Your task to perform on an android device: clear history in the chrome app Image 0: 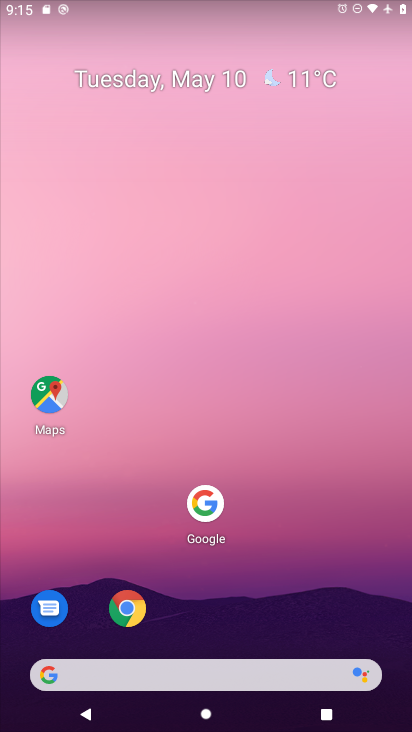
Step 0: drag from (188, 679) to (232, 184)
Your task to perform on an android device: clear history in the chrome app Image 1: 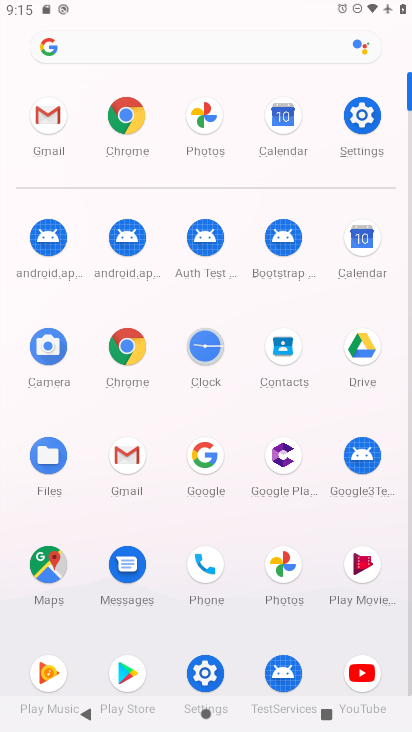
Step 1: click (130, 124)
Your task to perform on an android device: clear history in the chrome app Image 2: 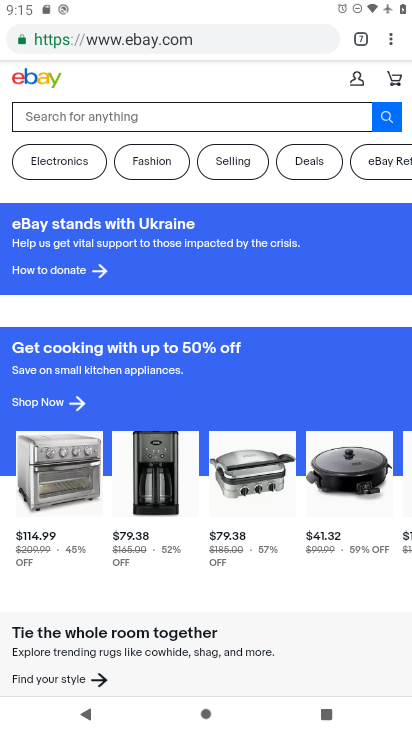
Step 2: drag from (394, 36) to (282, 221)
Your task to perform on an android device: clear history in the chrome app Image 3: 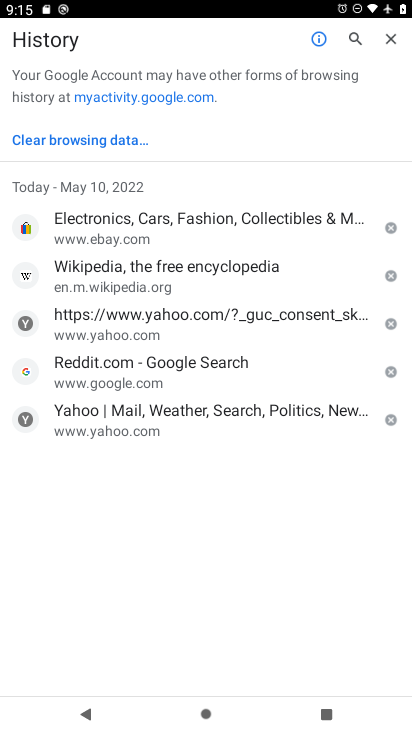
Step 3: click (69, 136)
Your task to perform on an android device: clear history in the chrome app Image 4: 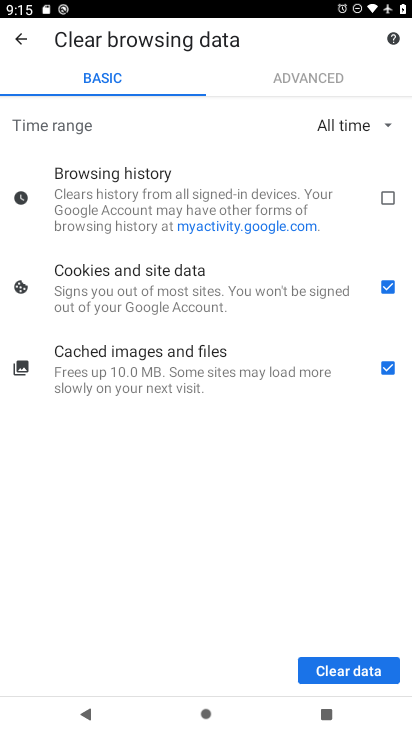
Step 4: click (385, 195)
Your task to perform on an android device: clear history in the chrome app Image 5: 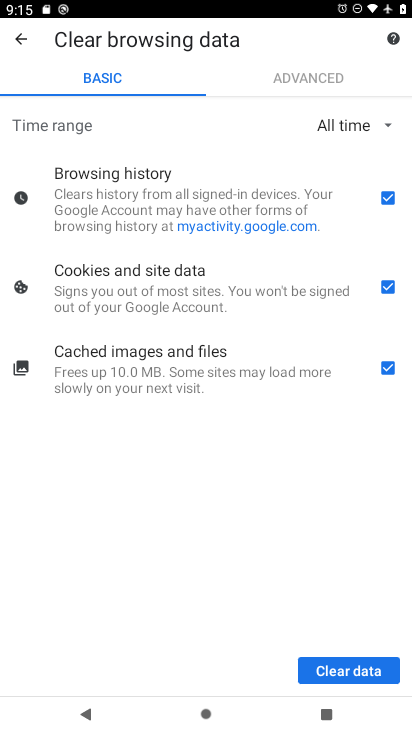
Step 5: click (331, 668)
Your task to perform on an android device: clear history in the chrome app Image 6: 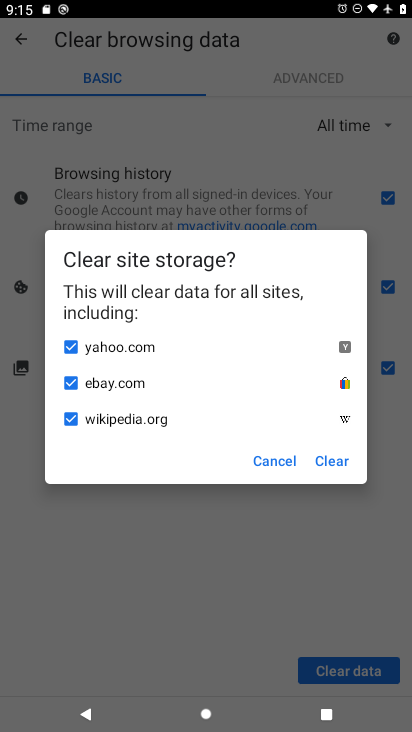
Step 6: click (339, 457)
Your task to perform on an android device: clear history in the chrome app Image 7: 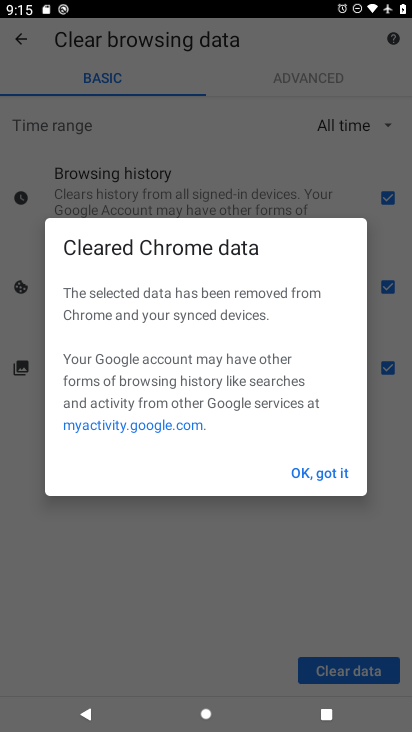
Step 7: click (339, 476)
Your task to perform on an android device: clear history in the chrome app Image 8: 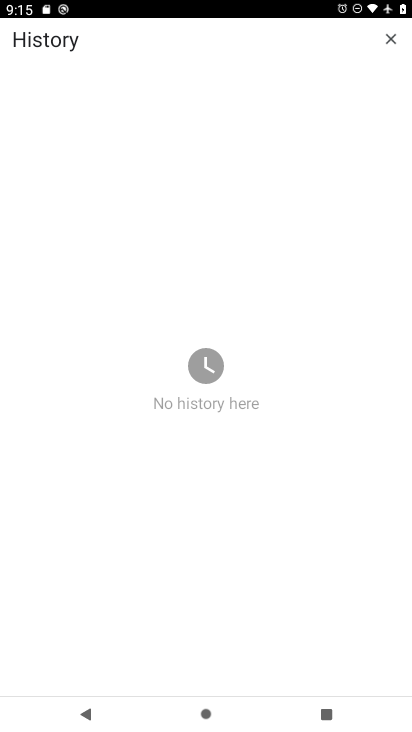
Step 8: task complete